Your task to perform on an android device: Go to Google maps Image 0: 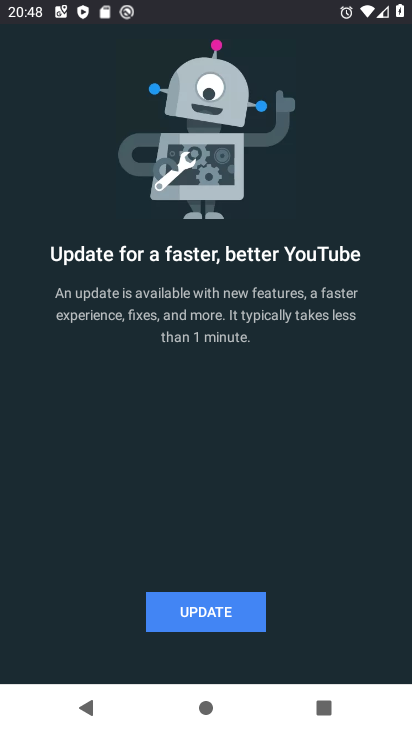
Step 0: press home button
Your task to perform on an android device: Go to Google maps Image 1: 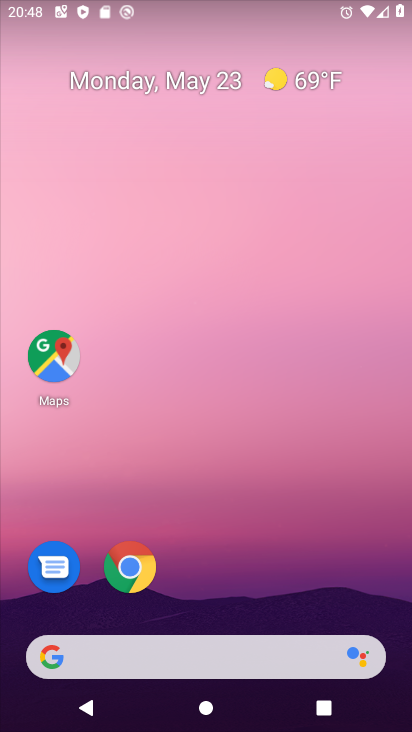
Step 1: click (69, 359)
Your task to perform on an android device: Go to Google maps Image 2: 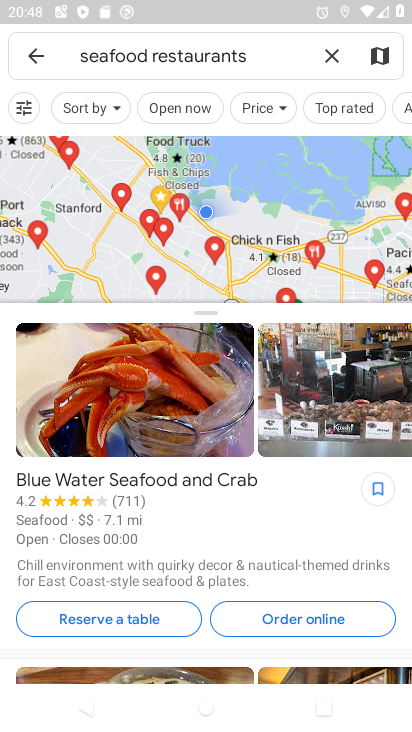
Step 2: click (37, 60)
Your task to perform on an android device: Go to Google maps Image 3: 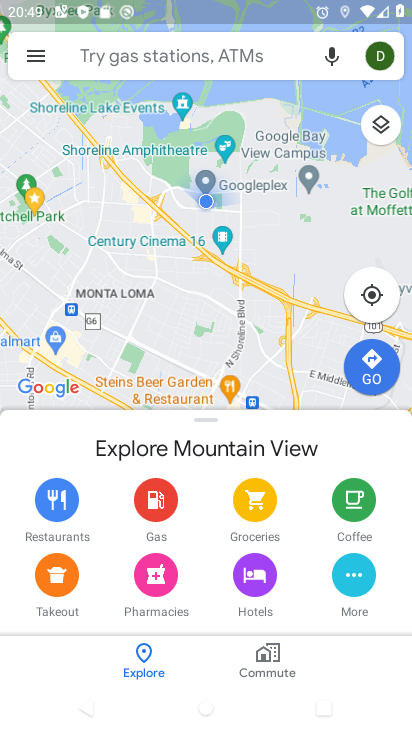
Step 3: task complete